Your task to perform on an android device: What is the recent news? Image 0: 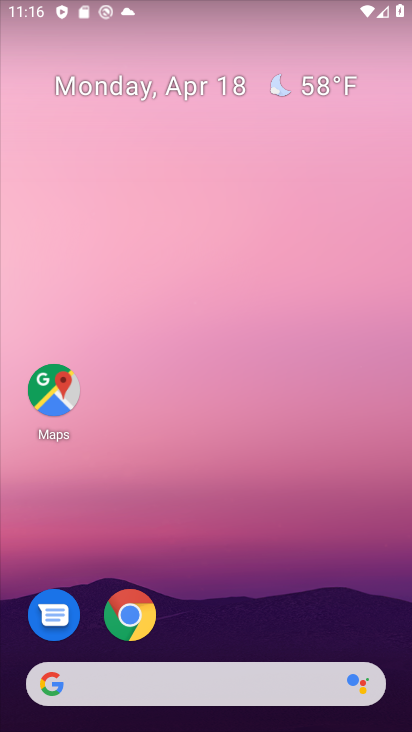
Step 0: drag from (14, 230) to (383, 288)
Your task to perform on an android device: What is the recent news? Image 1: 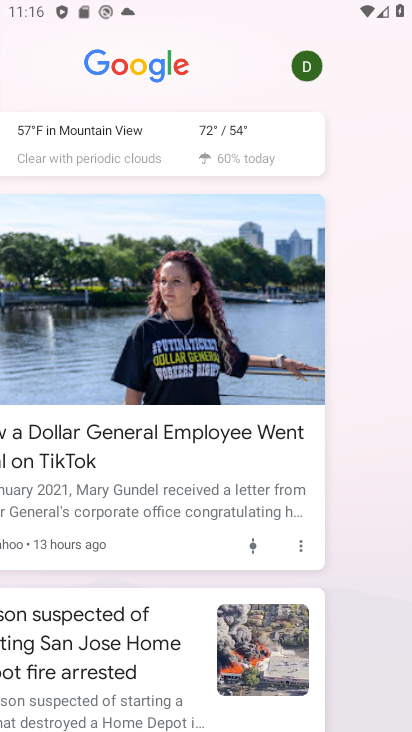
Step 1: drag from (68, 296) to (411, 481)
Your task to perform on an android device: What is the recent news? Image 2: 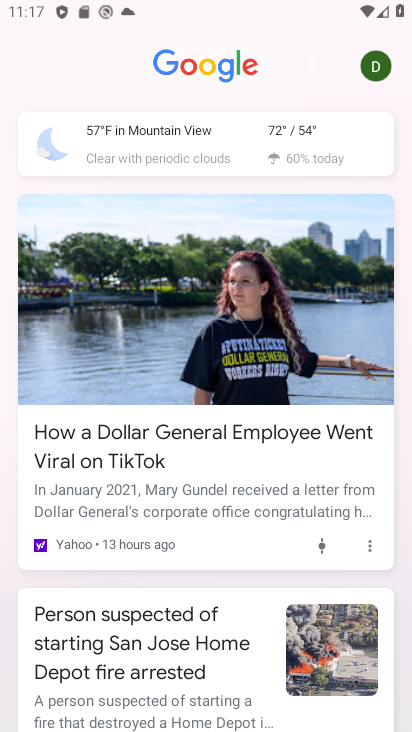
Step 2: click (398, 479)
Your task to perform on an android device: What is the recent news? Image 3: 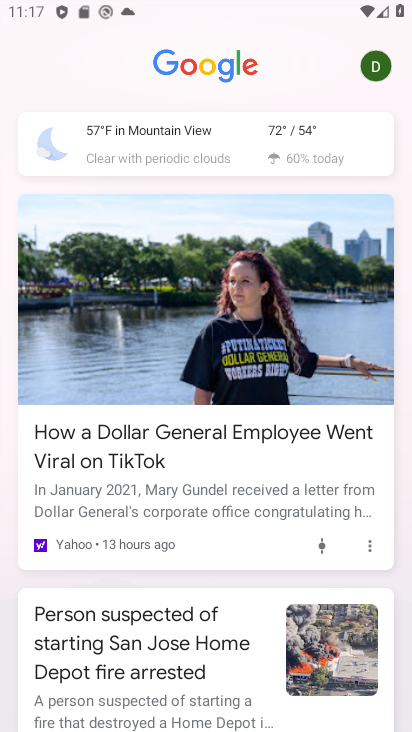
Step 3: task complete